Your task to perform on an android device: toggle pop-ups in chrome Image 0: 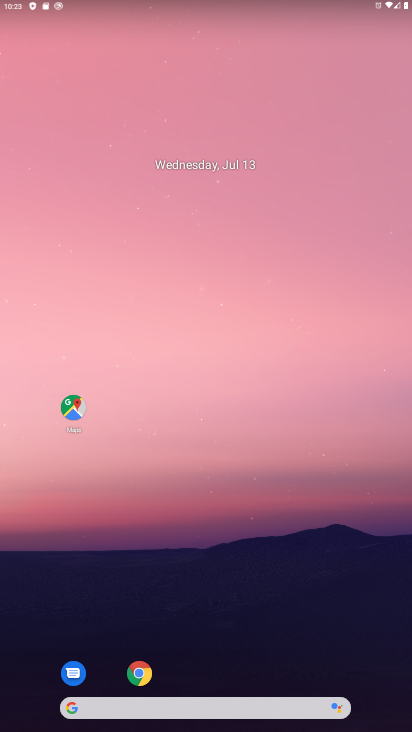
Step 0: click (128, 676)
Your task to perform on an android device: toggle pop-ups in chrome Image 1: 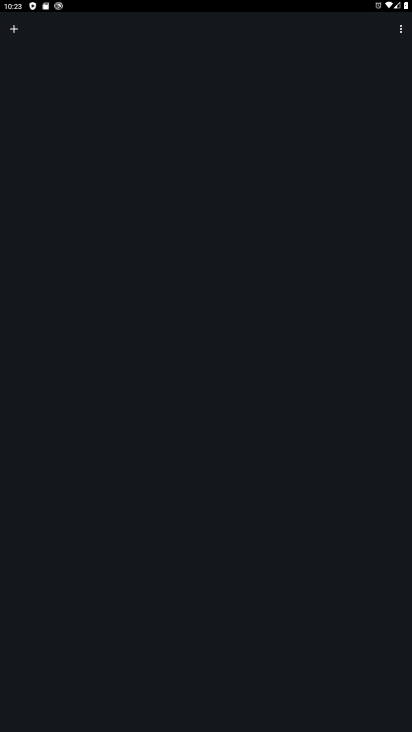
Step 1: click (403, 31)
Your task to perform on an android device: toggle pop-ups in chrome Image 2: 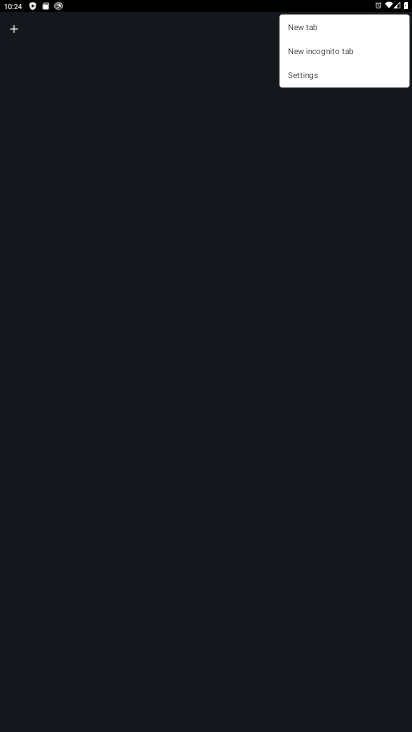
Step 2: click (315, 73)
Your task to perform on an android device: toggle pop-ups in chrome Image 3: 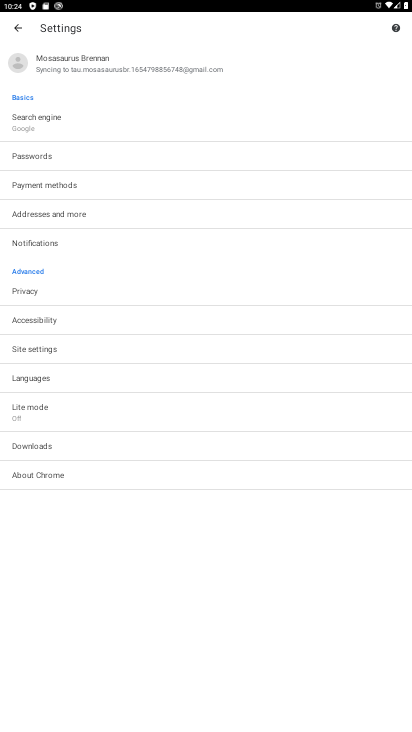
Step 3: click (25, 350)
Your task to perform on an android device: toggle pop-ups in chrome Image 4: 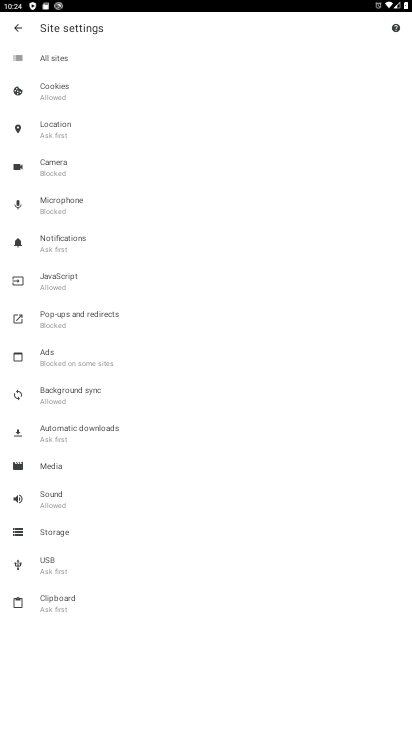
Step 4: click (58, 328)
Your task to perform on an android device: toggle pop-ups in chrome Image 5: 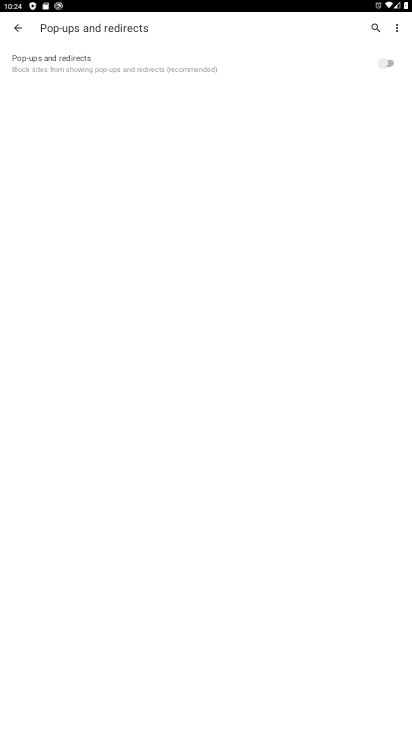
Step 5: click (384, 61)
Your task to perform on an android device: toggle pop-ups in chrome Image 6: 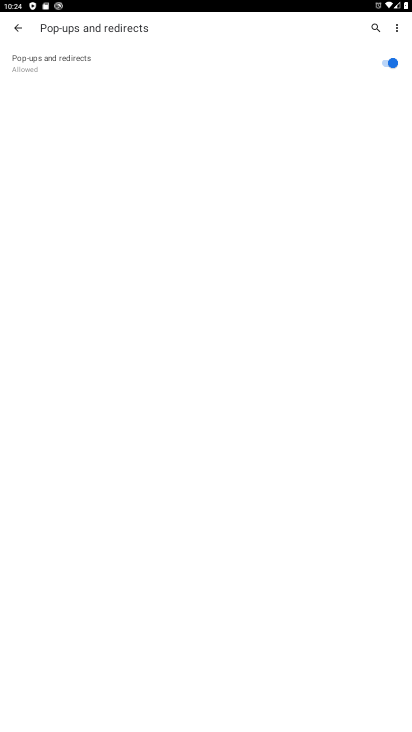
Step 6: task complete